Your task to perform on an android device: Go to Android settings Image 0: 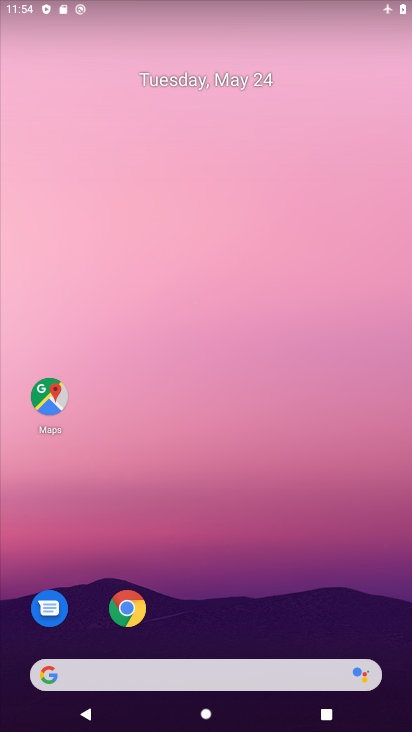
Step 0: drag from (255, 617) to (175, 40)
Your task to perform on an android device: Go to Android settings Image 1: 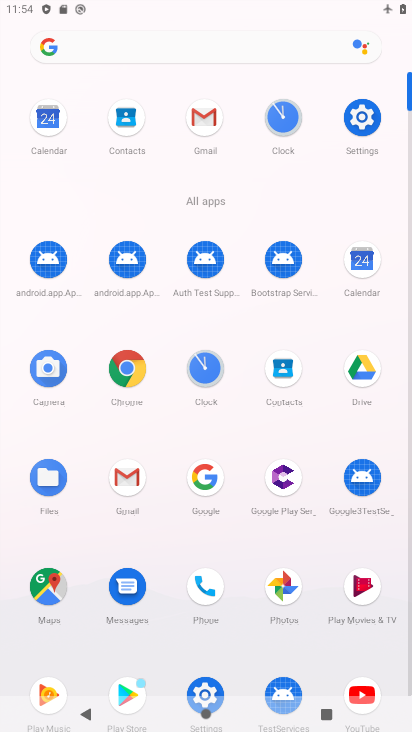
Step 1: click (345, 126)
Your task to perform on an android device: Go to Android settings Image 2: 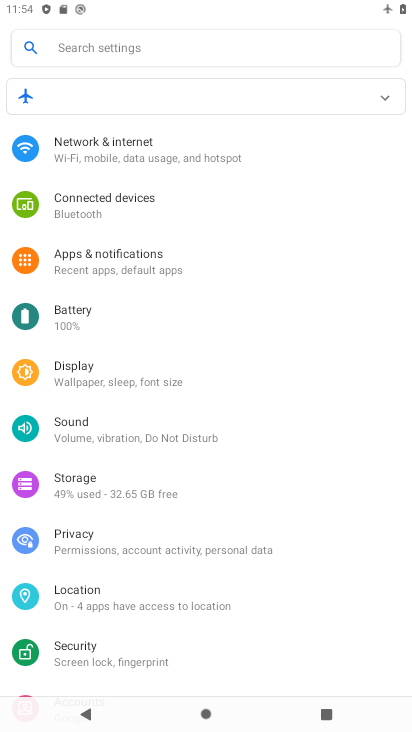
Step 2: task complete